Your task to perform on an android device: Open my contact list Image 0: 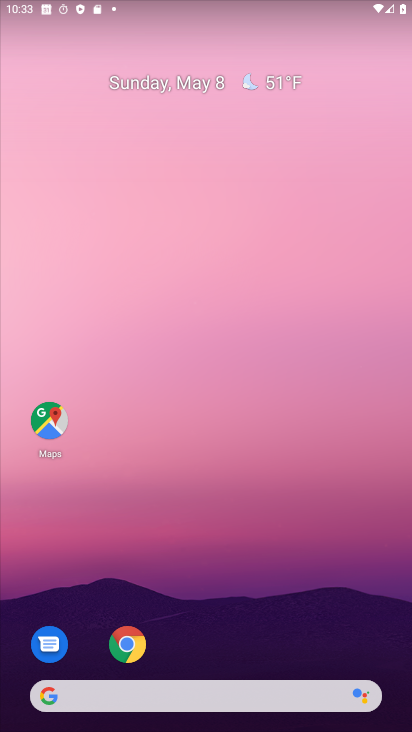
Step 0: drag from (199, 645) to (297, 103)
Your task to perform on an android device: Open my contact list Image 1: 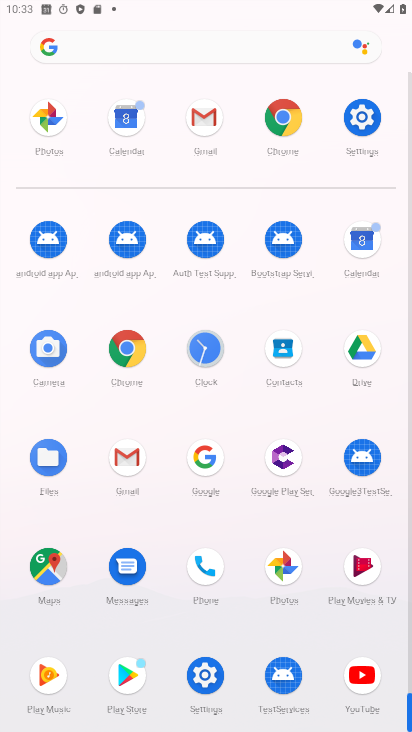
Step 1: click (289, 349)
Your task to perform on an android device: Open my contact list Image 2: 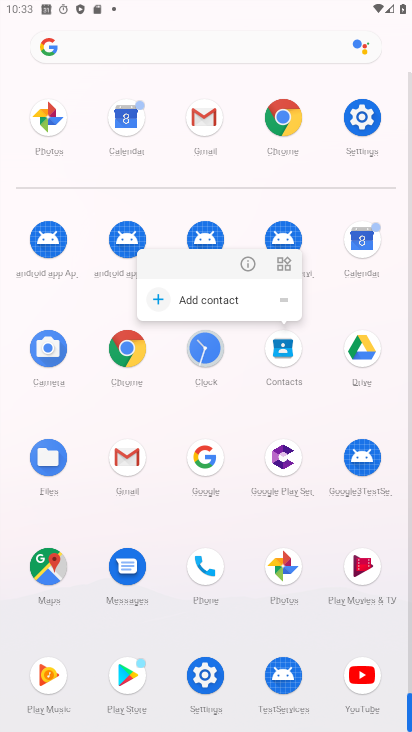
Step 2: click (243, 257)
Your task to perform on an android device: Open my contact list Image 3: 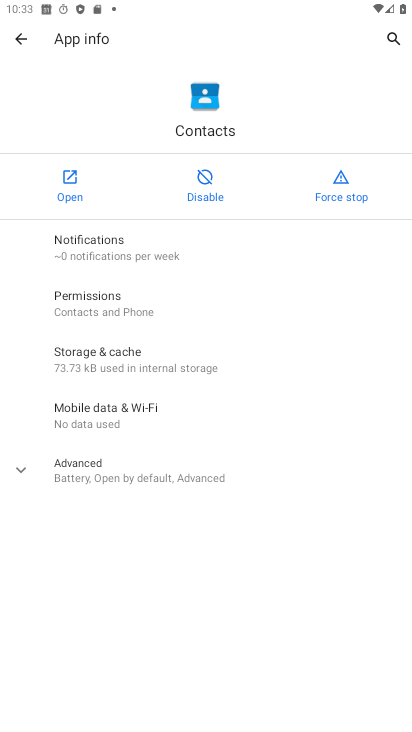
Step 3: click (71, 190)
Your task to perform on an android device: Open my contact list Image 4: 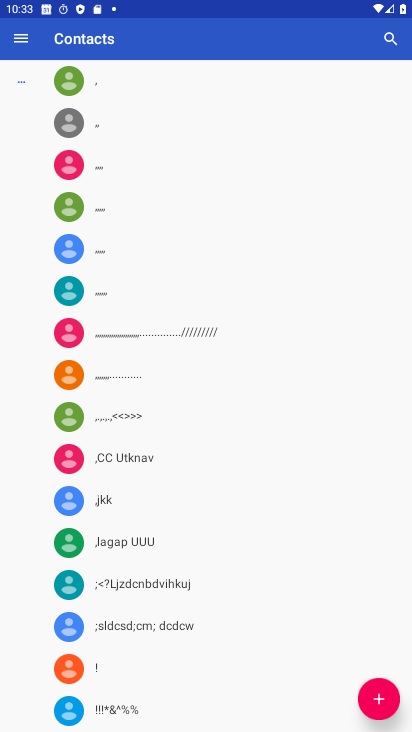
Step 4: task complete